Your task to perform on an android device: Set the phone to "Do not disturb". Image 0: 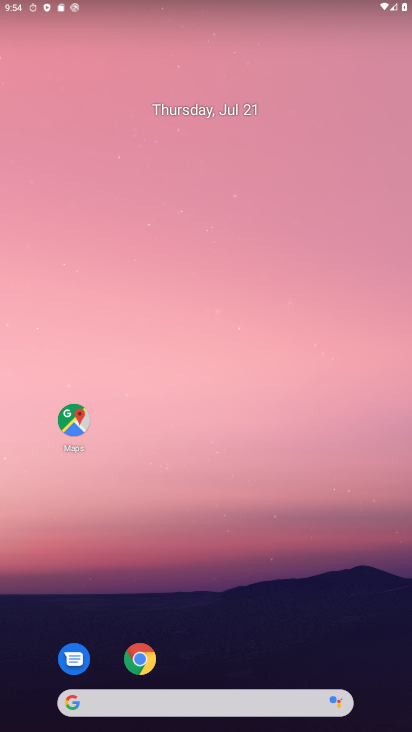
Step 0: drag from (244, 6) to (333, 584)
Your task to perform on an android device: Set the phone to "Do not disturb". Image 1: 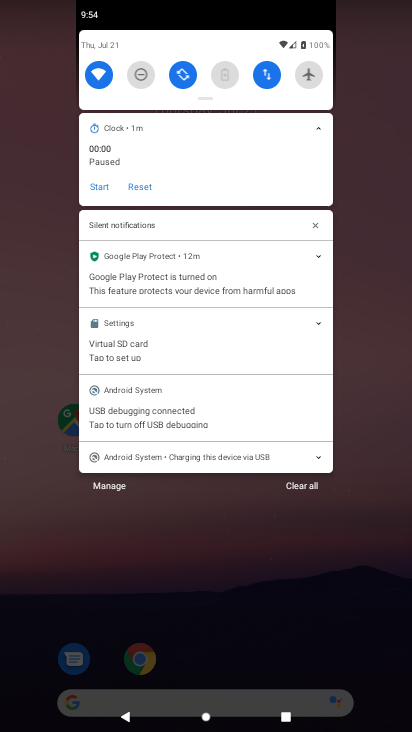
Step 1: click (137, 73)
Your task to perform on an android device: Set the phone to "Do not disturb". Image 2: 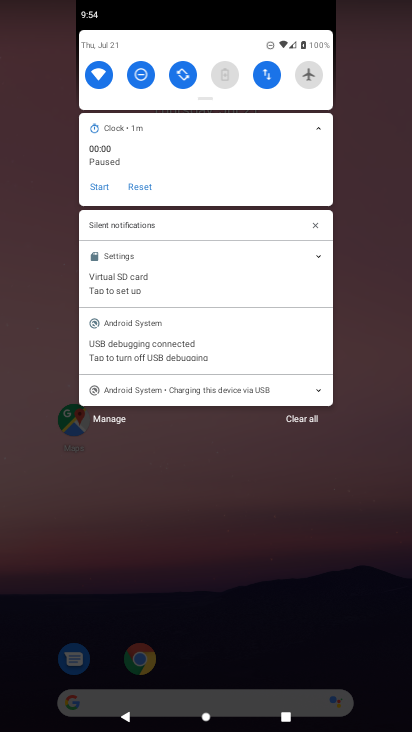
Step 2: task complete